Your task to perform on an android device: turn off notifications settings in the gmail app Image 0: 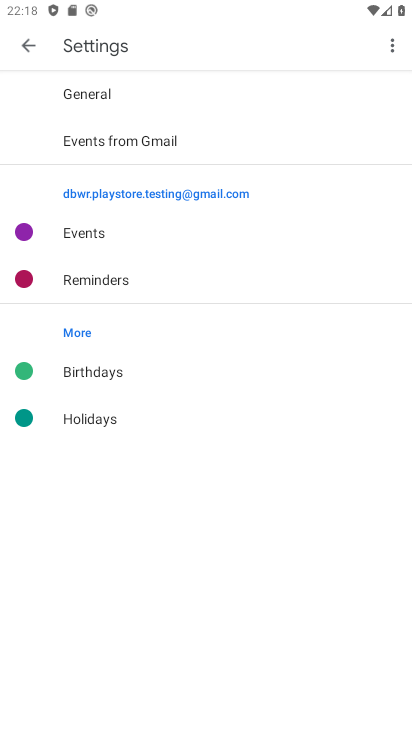
Step 0: press home button
Your task to perform on an android device: turn off notifications settings in the gmail app Image 1: 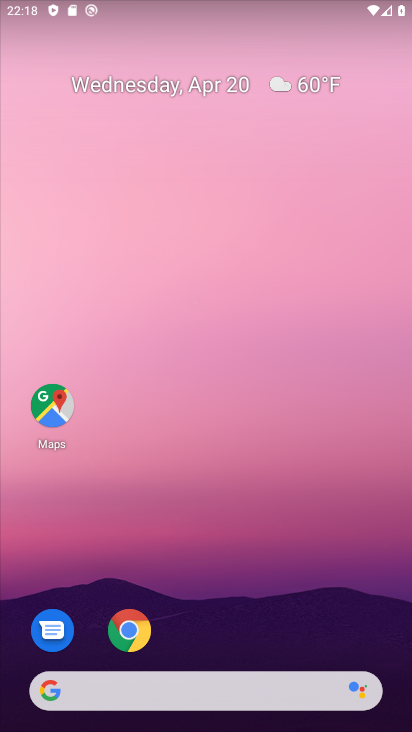
Step 1: drag from (312, 634) to (338, 3)
Your task to perform on an android device: turn off notifications settings in the gmail app Image 2: 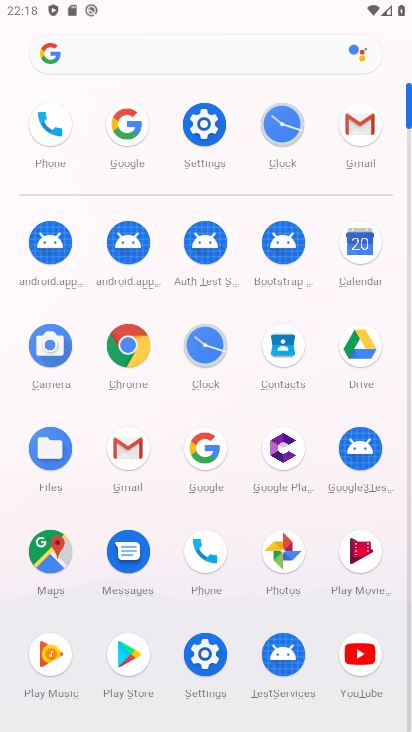
Step 2: drag from (125, 447) to (79, 181)
Your task to perform on an android device: turn off notifications settings in the gmail app Image 3: 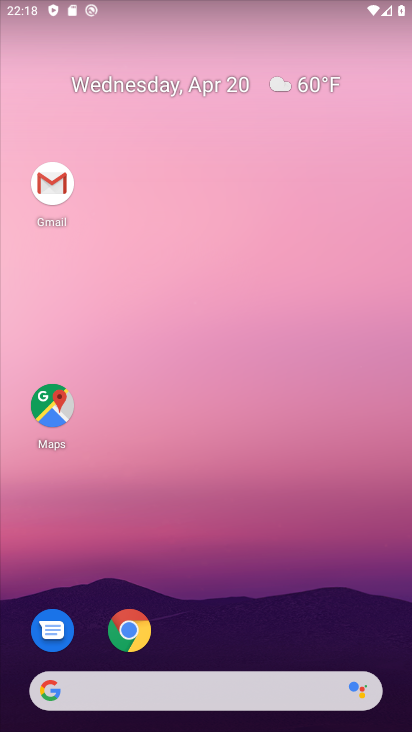
Step 3: click (63, 180)
Your task to perform on an android device: turn off notifications settings in the gmail app Image 4: 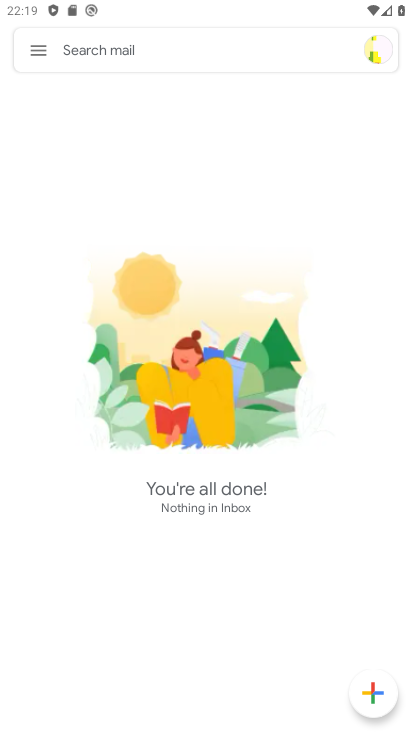
Step 4: press home button
Your task to perform on an android device: turn off notifications settings in the gmail app Image 5: 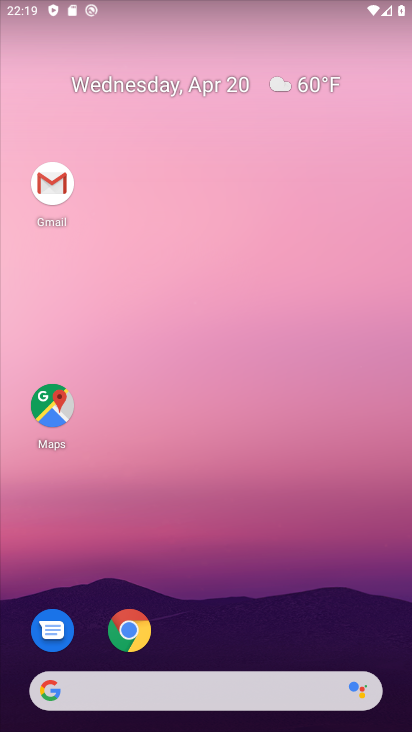
Step 5: click (60, 181)
Your task to perform on an android device: turn off notifications settings in the gmail app Image 6: 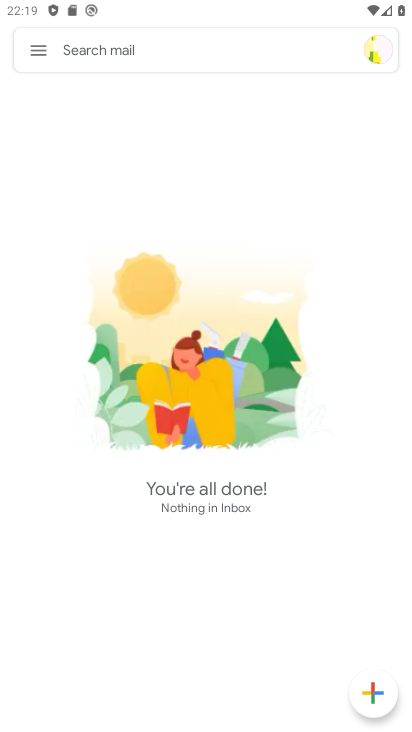
Step 6: click (35, 45)
Your task to perform on an android device: turn off notifications settings in the gmail app Image 7: 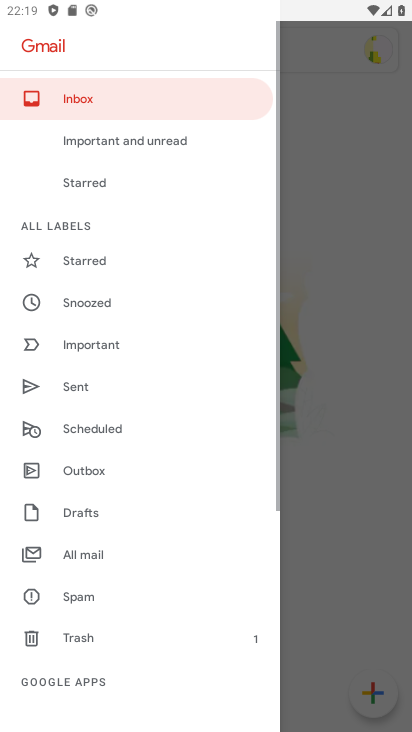
Step 7: drag from (186, 596) to (185, 202)
Your task to perform on an android device: turn off notifications settings in the gmail app Image 8: 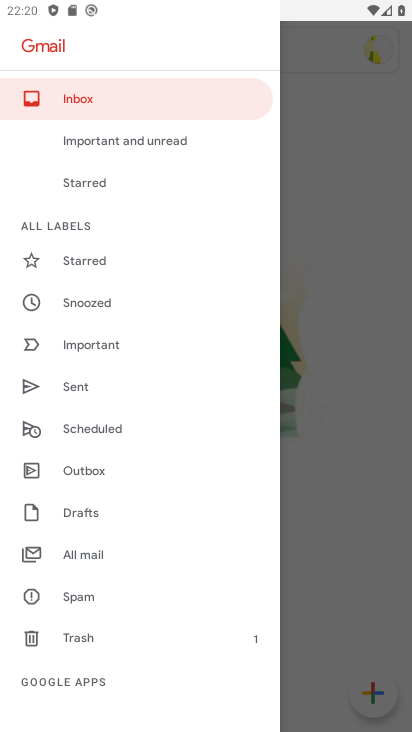
Step 8: drag from (143, 494) to (205, 116)
Your task to perform on an android device: turn off notifications settings in the gmail app Image 9: 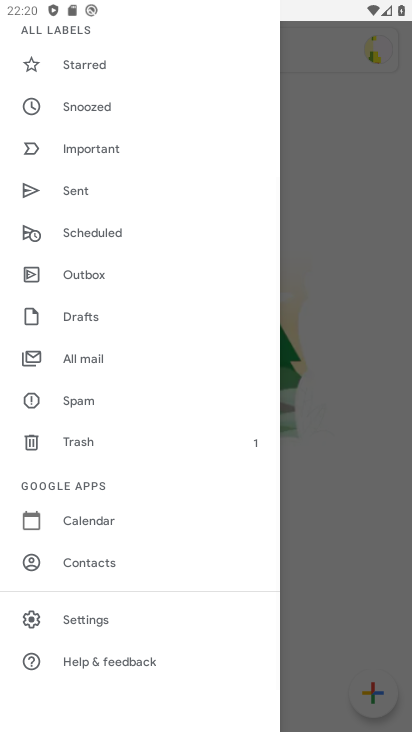
Step 9: click (125, 618)
Your task to perform on an android device: turn off notifications settings in the gmail app Image 10: 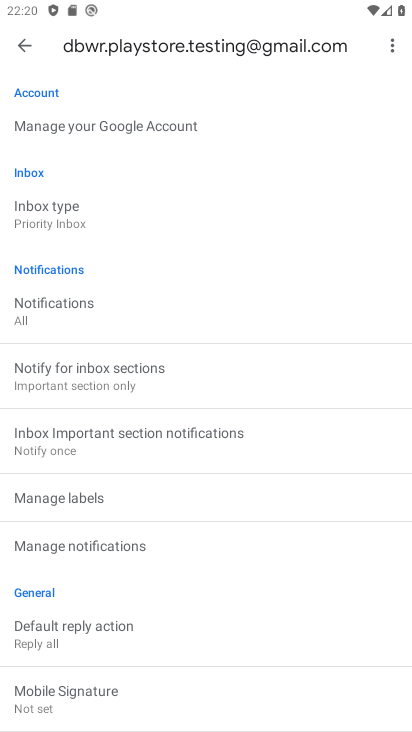
Step 10: click (111, 315)
Your task to perform on an android device: turn off notifications settings in the gmail app Image 11: 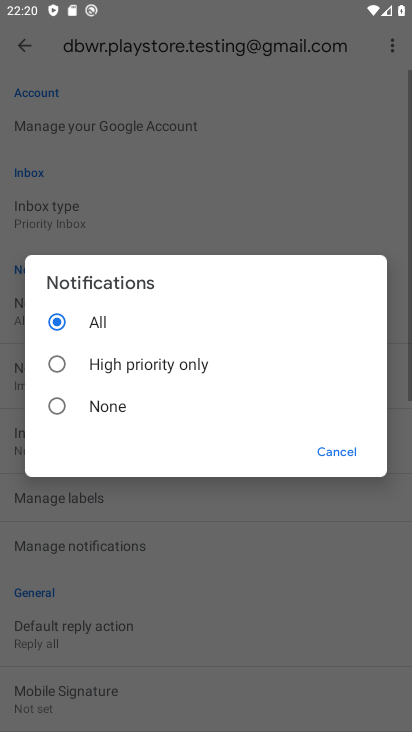
Step 11: click (97, 401)
Your task to perform on an android device: turn off notifications settings in the gmail app Image 12: 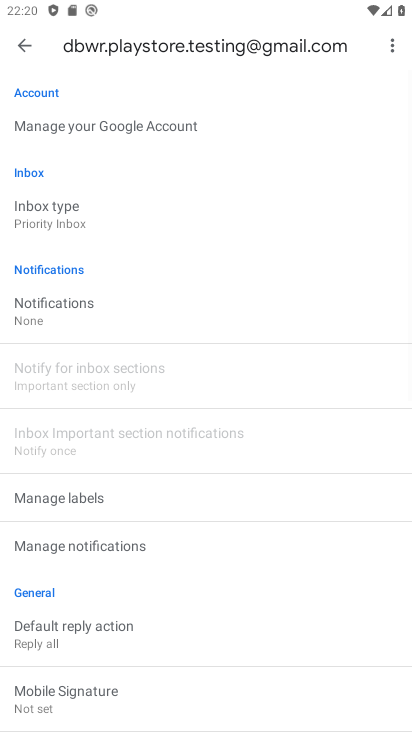
Step 12: task complete